Your task to perform on an android device: Go to internet settings Image 0: 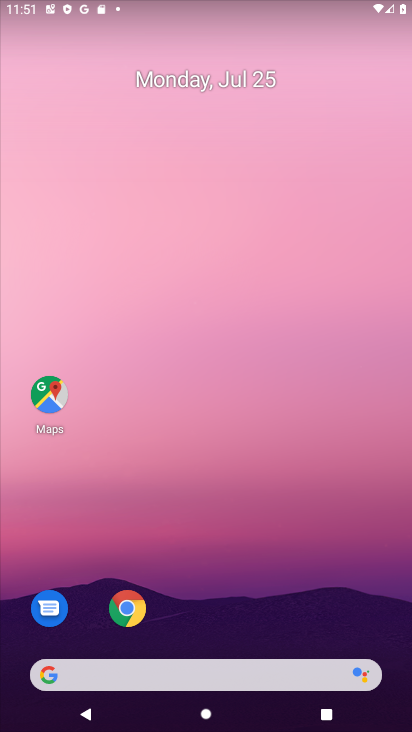
Step 0: drag from (273, 14) to (284, 501)
Your task to perform on an android device: Go to internet settings Image 1: 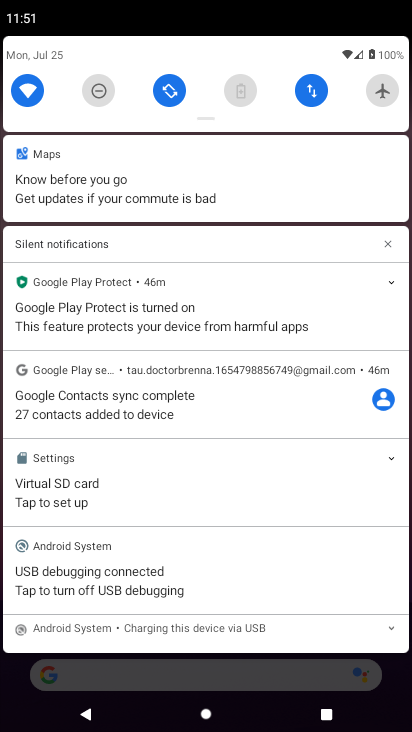
Step 1: click (301, 95)
Your task to perform on an android device: Go to internet settings Image 2: 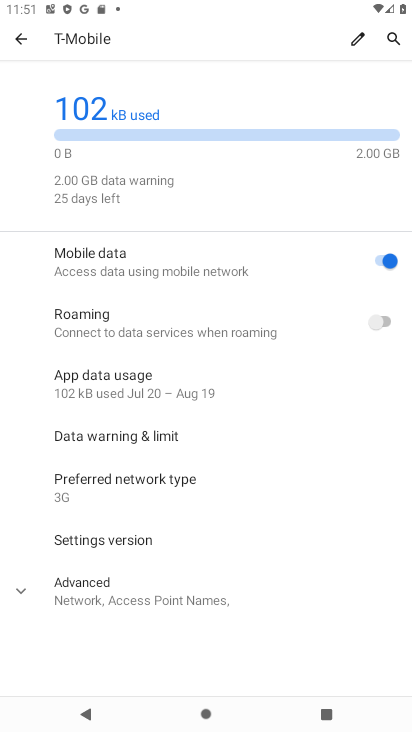
Step 2: task complete